Your task to perform on an android device: turn notification dots on Image 0: 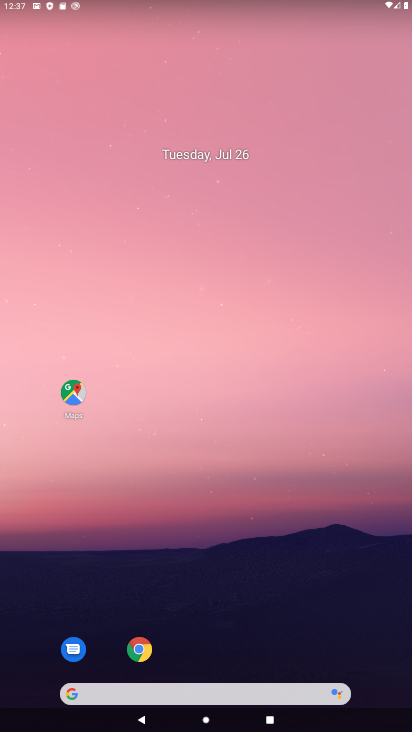
Step 0: drag from (258, 631) to (290, 238)
Your task to perform on an android device: turn notification dots on Image 1: 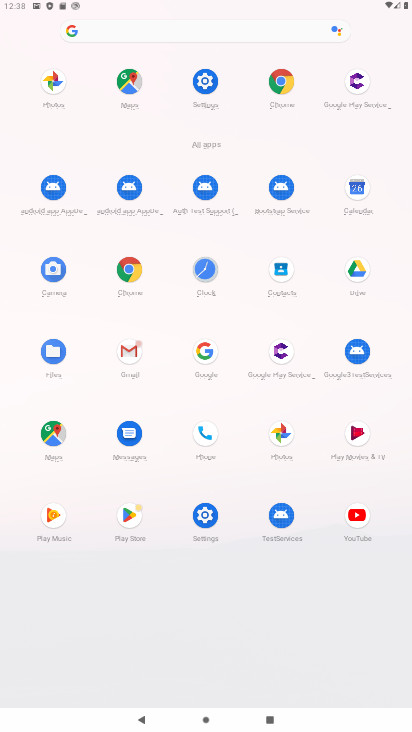
Step 1: click (204, 516)
Your task to perform on an android device: turn notification dots on Image 2: 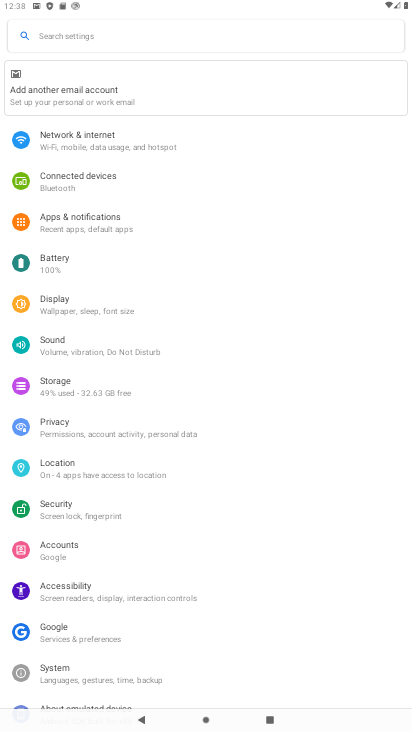
Step 2: click (95, 230)
Your task to perform on an android device: turn notification dots on Image 3: 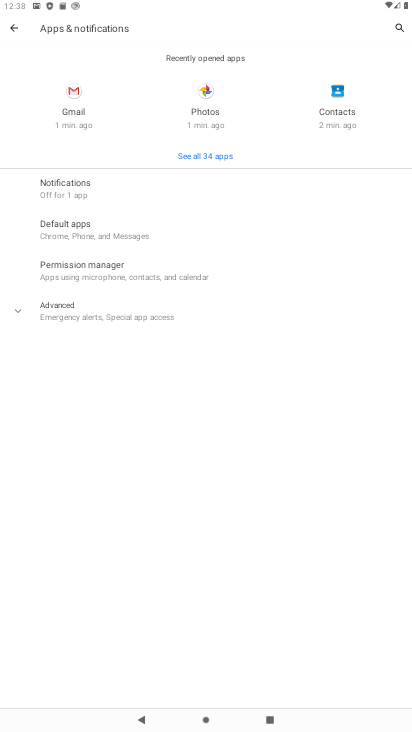
Step 3: click (133, 322)
Your task to perform on an android device: turn notification dots on Image 4: 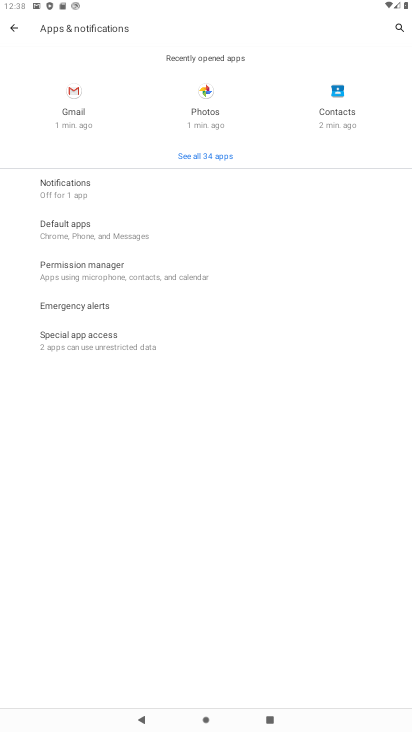
Step 4: click (152, 193)
Your task to perform on an android device: turn notification dots on Image 5: 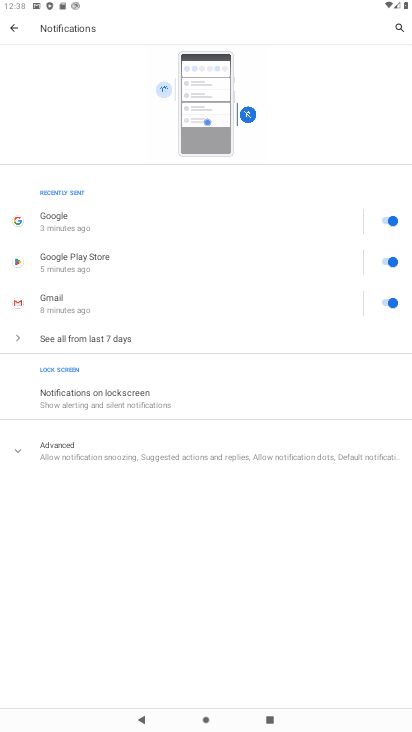
Step 5: click (253, 442)
Your task to perform on an android device: turn notification dots on Image 6: 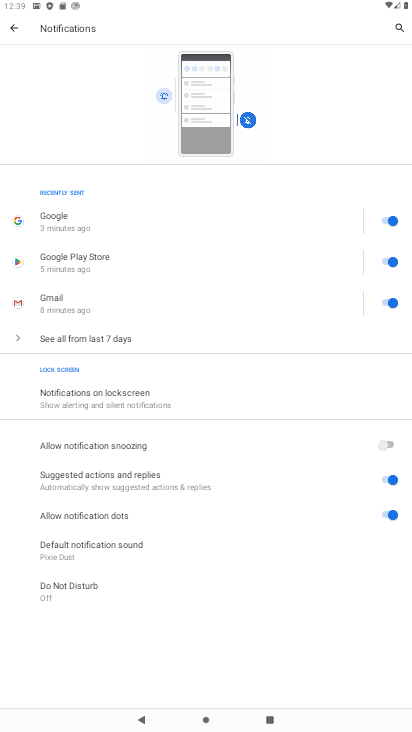
Step 6: task complete